Your task to perform on an android device: Go to Google Image 0: 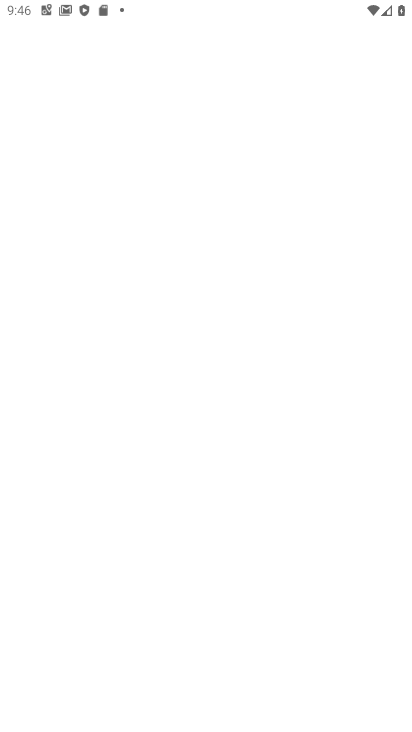
Step 0: press home button
Your task to perform on an android device: Go to Google Image 1: 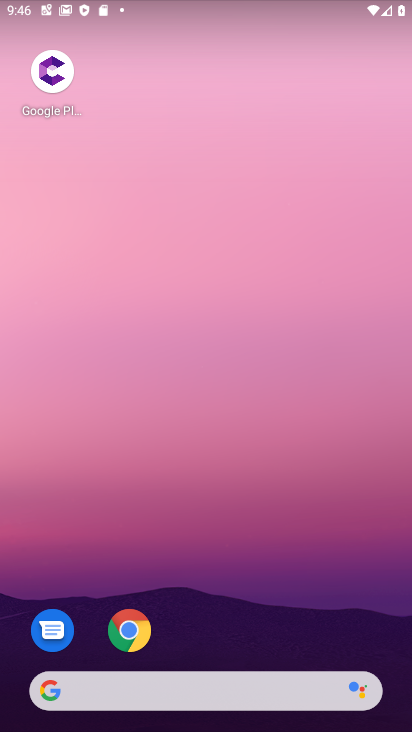
Step 1: click (42, 688)
Your task to perform on an android device: Go to Google Image 2: 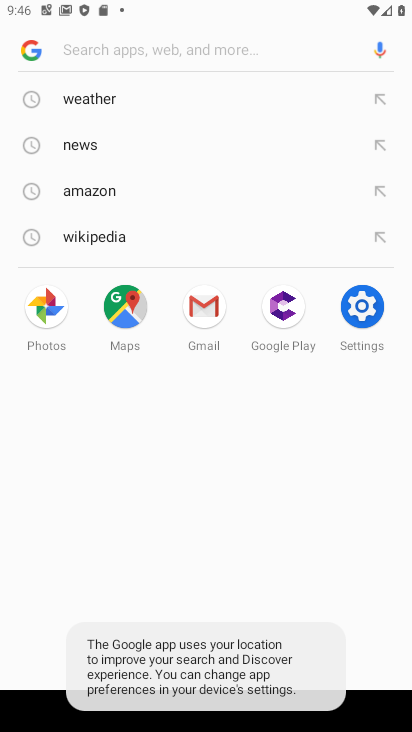
Step 2: click (29, 56)
Your task to perform on an android device: Go to Google Image 3: 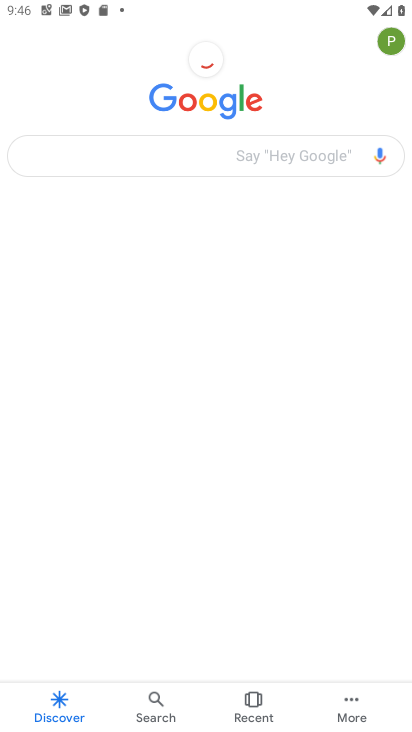
Step 3: task complete